Your task to perform on an android device: Go to network settings Image 0: 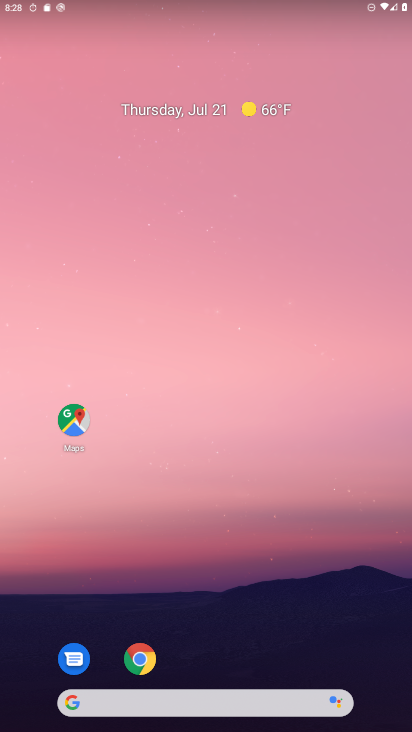
Step 0: drag from (196, 687) to (297, 149)
Your task to perform on an android device: Go to network settings Image 1: 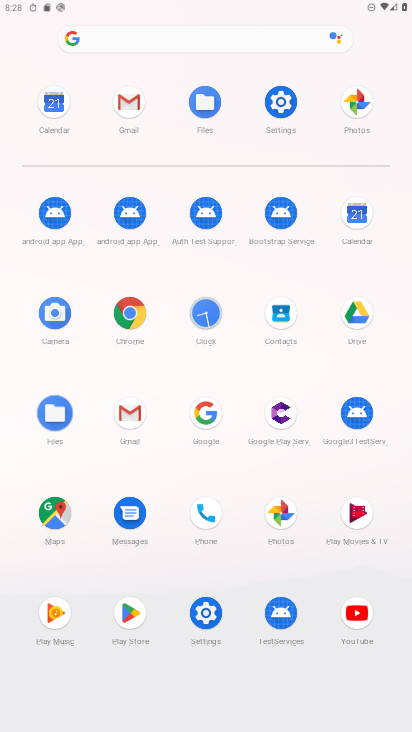
Step 1: click (279, 105)
Your task to perform on an android device: Go to network settings Image 2: 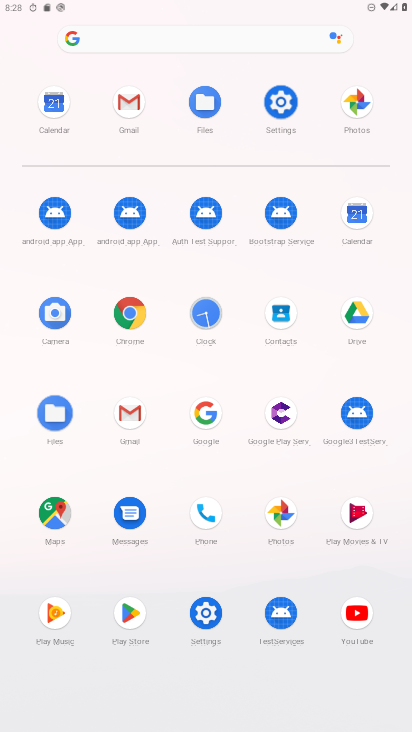
Step 2: click (280, 106)
Your task to perform on an android device: Go to network settings Image 3: 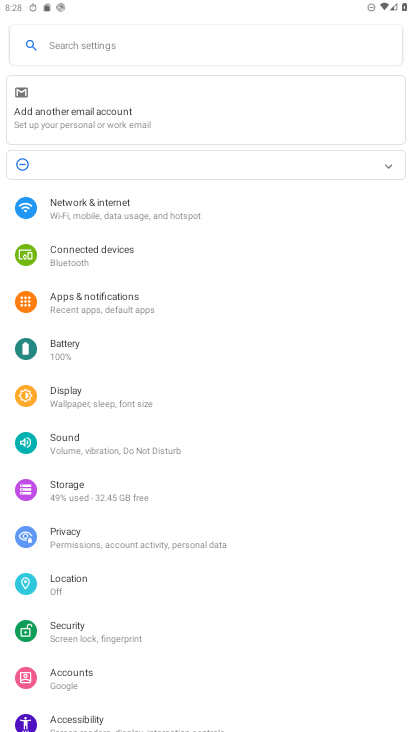
Step 3: click (138, 199)
Your task to perform on an android device: Go to network settings Image 4: 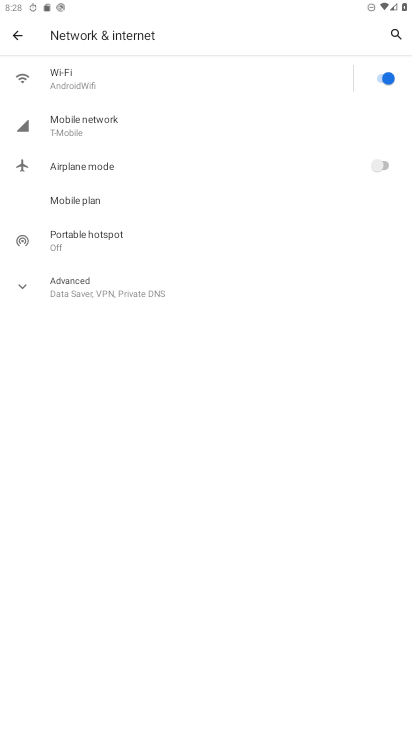
Step 4: task complete